Your task to perform on an android device: Open Google Image 0: 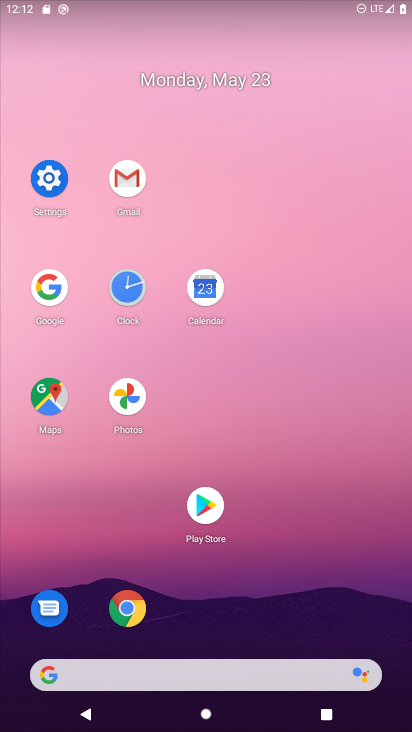
Step 0: click (53, 287)
Your task to perform on an android device: Open Google Image 1: 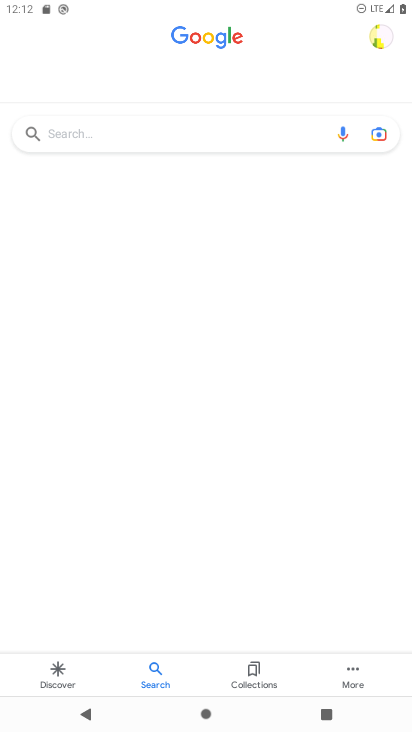
Step 1: task complete